Your task to perform on an android device: turn on notifications settings in the gmail app Image 0: 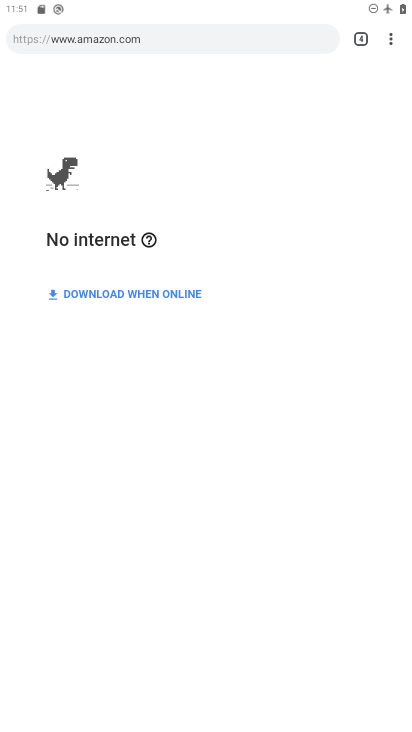
Step 0: press home button
Your task to perform on an android device: turn on notifications settings in the gmail app Image 1: 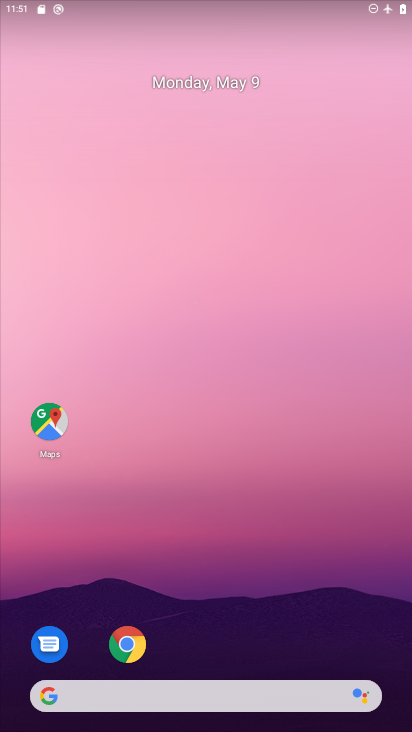
Step 1: drag from (203, 651) to (217, 177)
Your task to perform on an android device: turn on notifications settings in the gmail app Image 2: 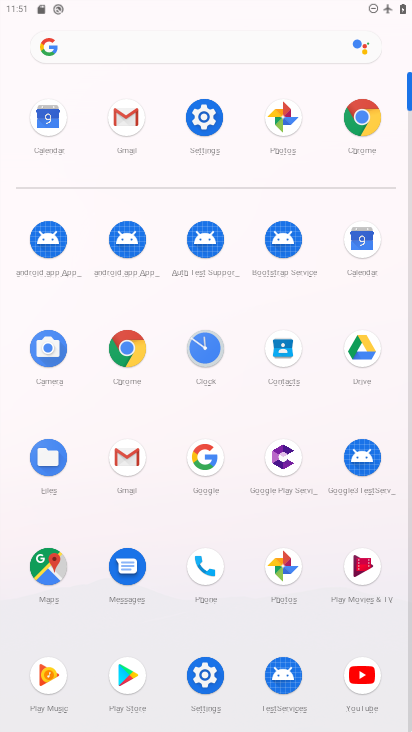
Step 2: click (135, 126)
Your task to perform on an android device: turn on notifications settings in the gmail app Image 3: 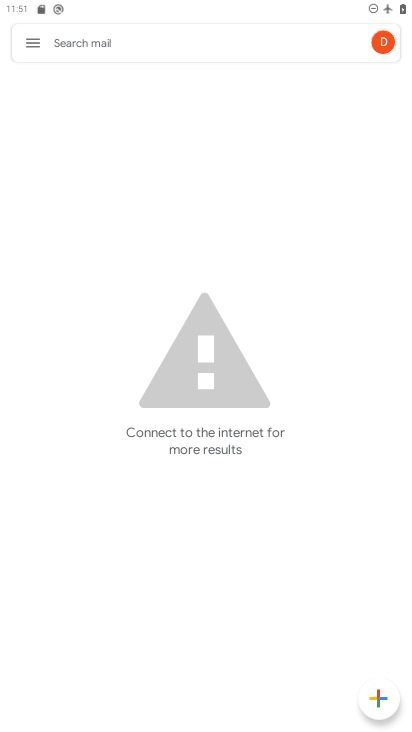
Step 3: click (21, 48)
Your task to perform on an android device: turn on notifications settings in the gmail app Image 4: 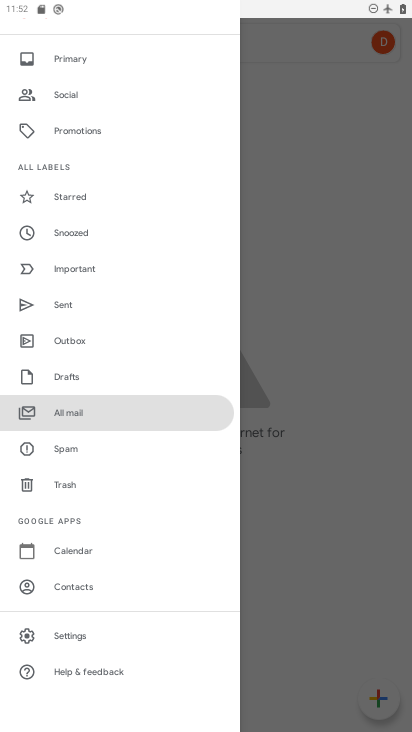
Step 4: click (99, 631)
Your task to perform on an android device: turn on notifications settings in the gmail app Image 5: 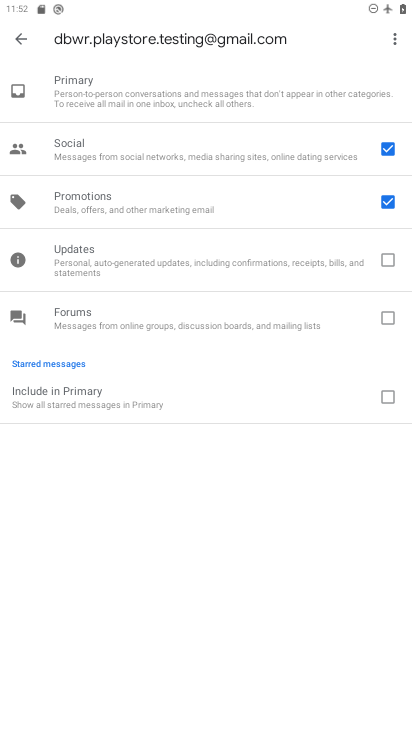
Step 5: click (30, 38)
Your task to perform on an android device: turn on notifications settings in the gmail app Image 6: 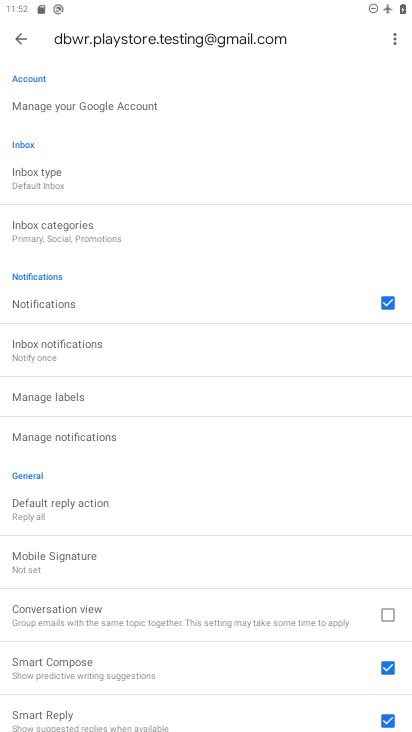
Step 6: click (128, 426)
Your task to perform on an android device: turn on notifications settings in the gmail app Image 7: 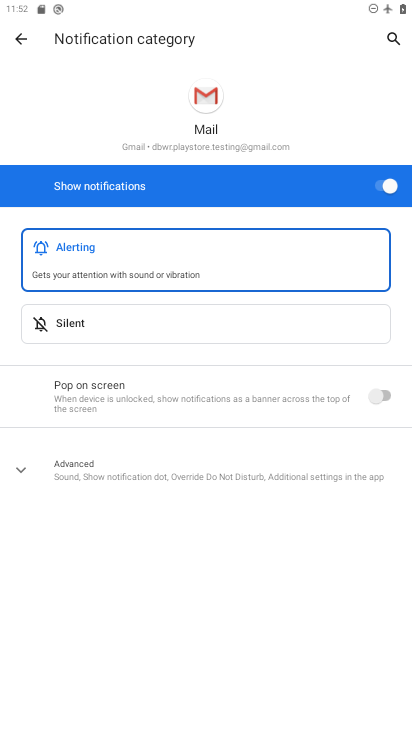
Step 7: click (144, 454)
Your task to perform on an android device: turn on notifications settings in the gmail app Image 8: 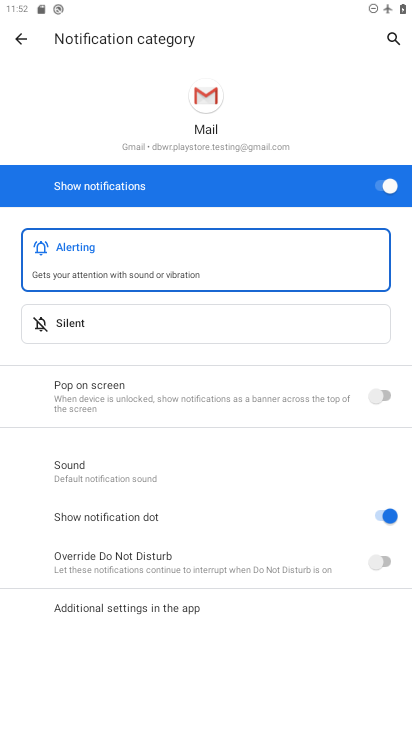
Step 8: task complete